Your task to perform on an android device: Clear the shopping cart on ebay.com. Add panasonic triple a to the cart on ebay.com, then select checkout. Image 0: 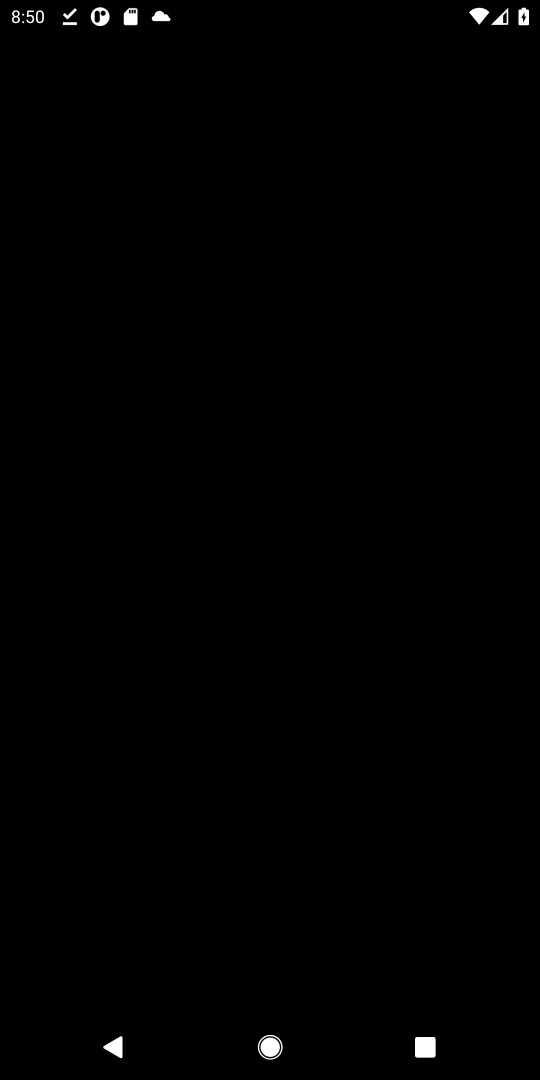
Step 0: press home button
Your task to perform on an android device: Clear the shopping cart on ebay.com. Add panasonic triple a to the cart on ebay.com, then select checkout. Image 1: 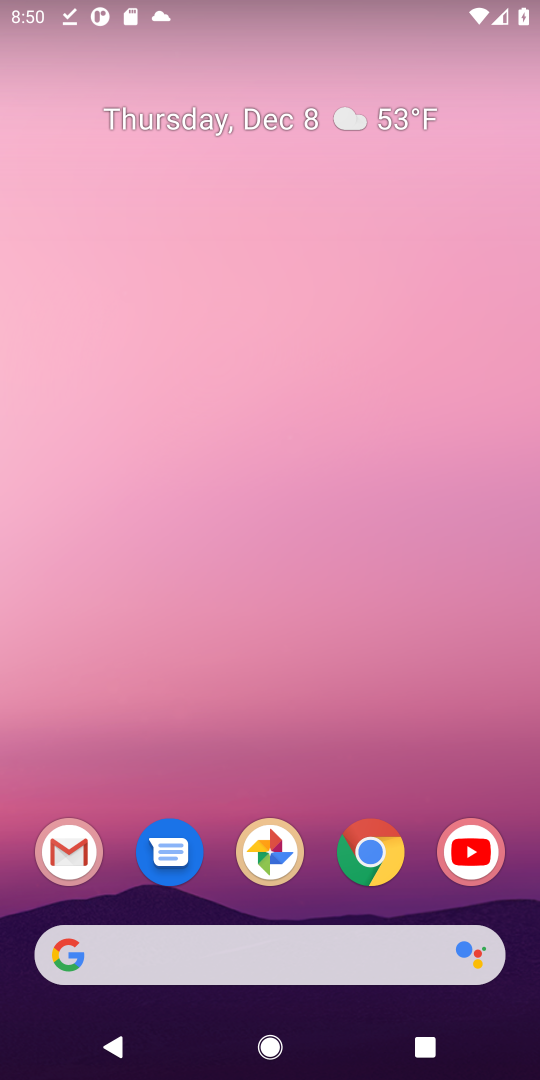
Step 1: click (206, 951)
Your task to perform on an android device: Clear the shopping cart on ebay.com. Add panasonic triple a to the cart on ebay.com, then select checkout. Image 2: 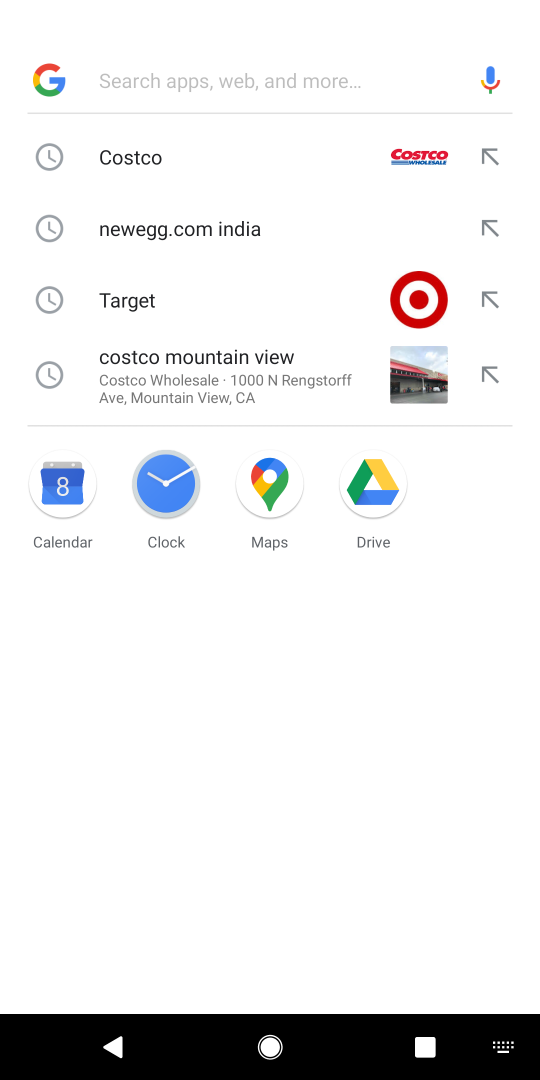
Step 2: type "ebay.com"
Your task to perform on an android device: Clear the shopping cart on ebay.com. Add panasonic triple a to the cart on ebay.com, then select checkout. Image 3: 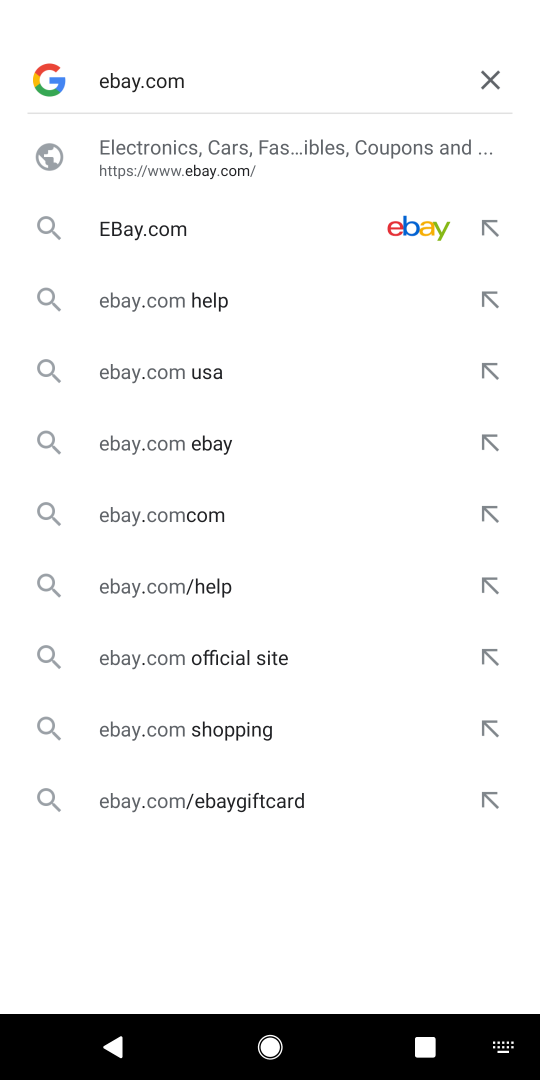
Step 3: click (226, 183)
Your task to perform on an android device: Clear the shopping cart on ebay.com. Add panasonic triple a to the cart on ebay.com, then select checkout. Image 4: 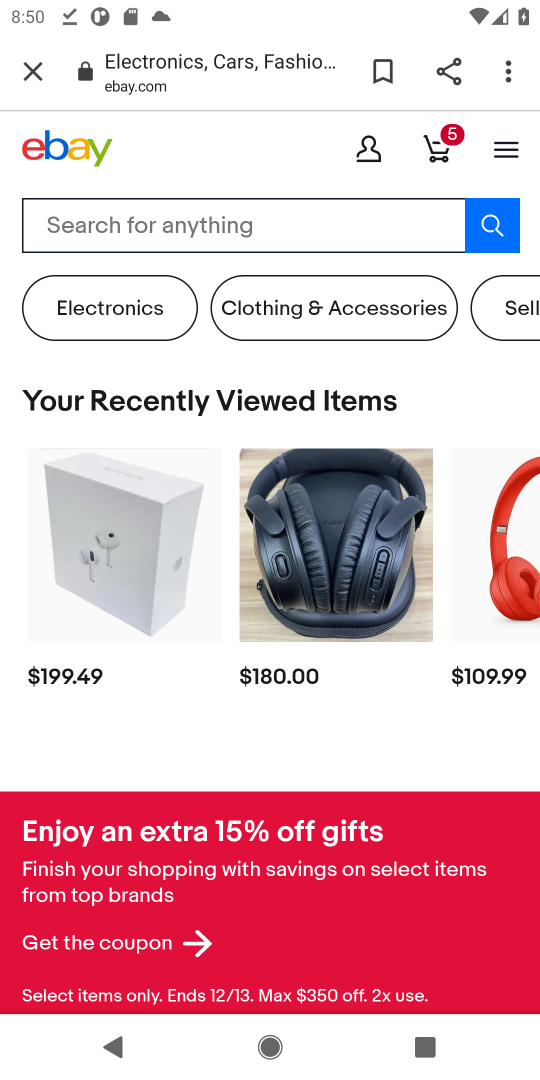
Step 4: click (243, 234)
Your task to perform on an android device: Clear the shopping cart on ebay.com. Add panasonic triple a to the cart on ebay.com, then select checkout. Image 5: 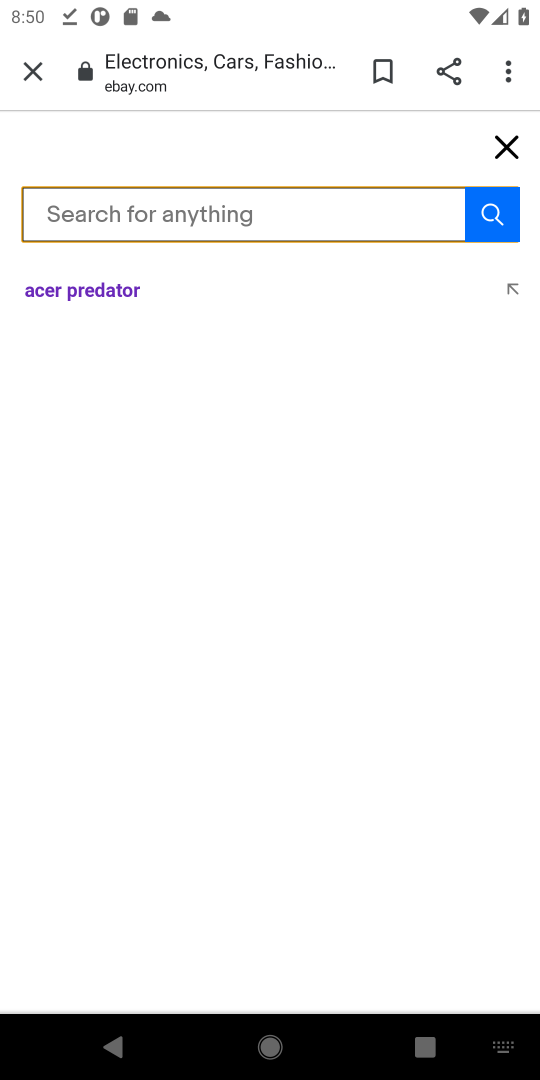
Step 5: type "panasonic triple a"
Your task to perform on an android device: Clear the shopping cart on ebay.com. Add panasonic triple a to the cart on ebay.com, then select checkout. Image 6: 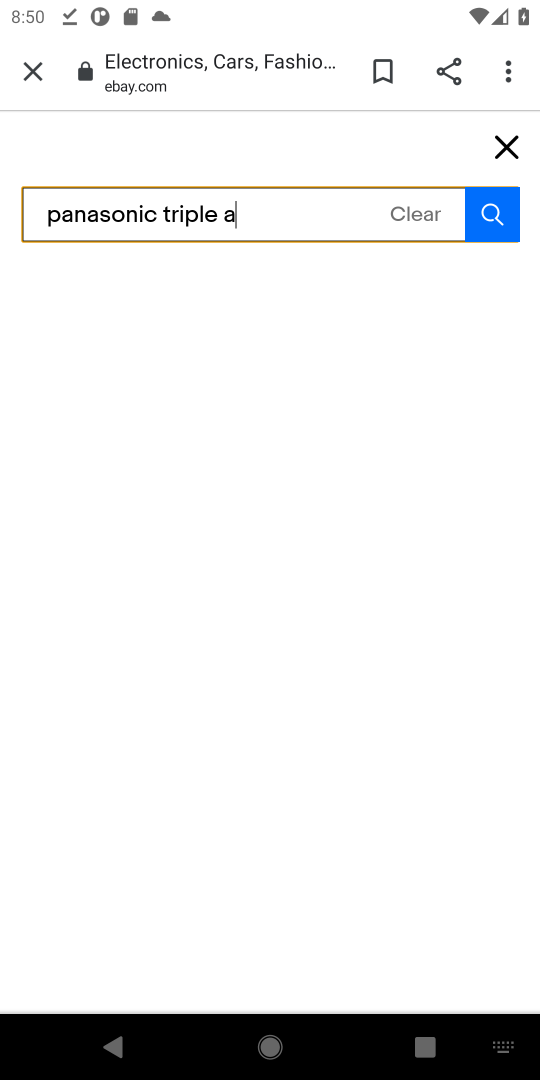
Step 6: click (486, 221)
Your task to perform on an android device: Clear the shopping cart on ebay.com. Add panasonic triple a to the cart on ebay.com, then select checkout. Image 7: 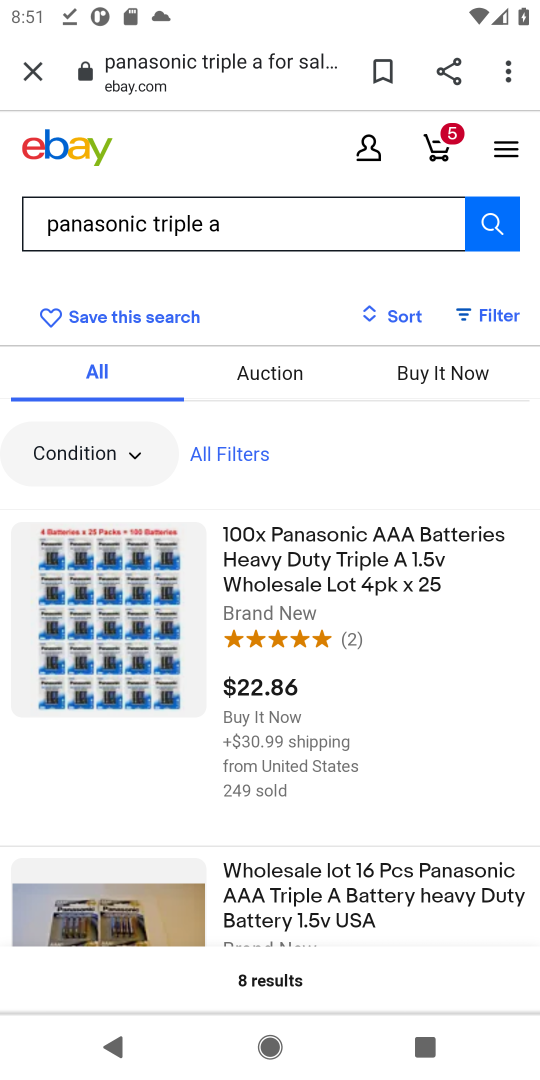
Step 7: task complete